Your task to perform on an android device: What's the weather going to be tomorrow? Image 0: 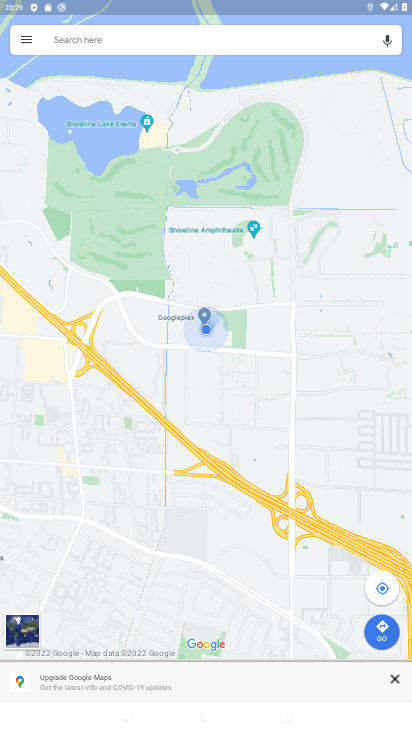
Step 0: press home button
Your task to perform on an android device: What's the weather going to be tomorrow? Image 1: 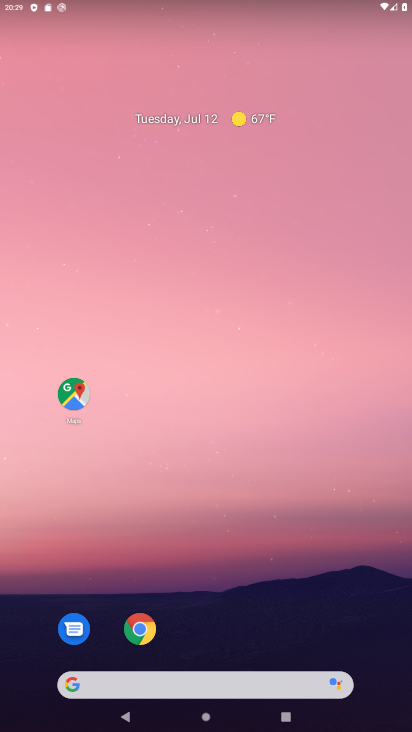
Step 1: click (170, 681)
Your task to perform on an android device: What's the weather going to be tomorrow? Image 2: 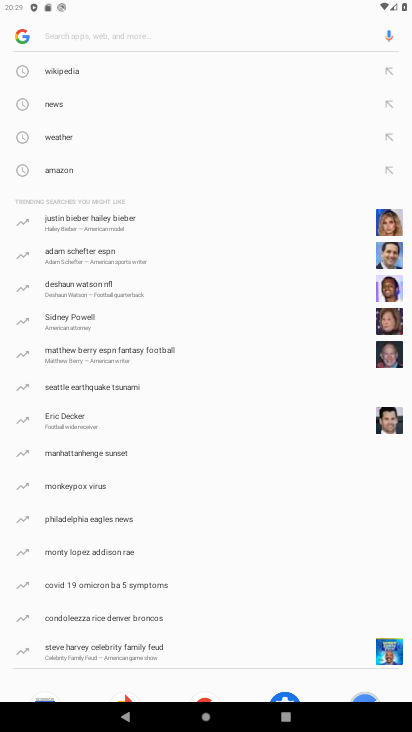
Step 2: type "What's the weather going to be tomorrow?"
Your task to perform on an android device: What's the weather going to be tomorrow? Image 3: 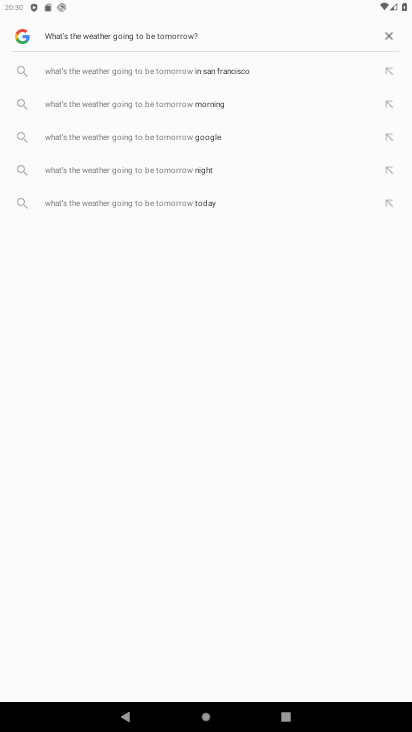
Step 3: press enter
Your task to perform on an android device: What's the weather going to be tomorrow? Image 4: 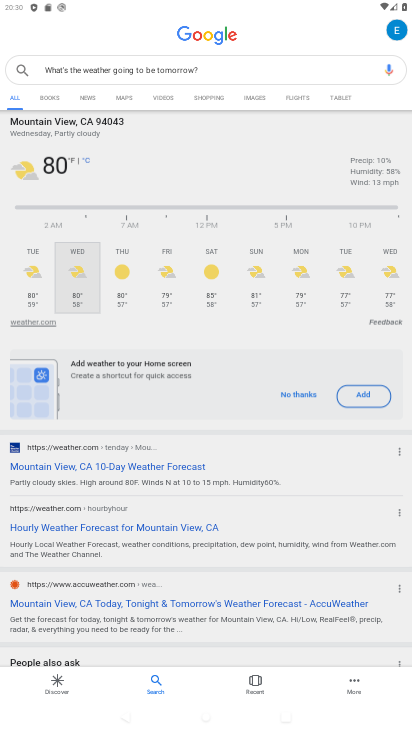
Step 4: task complete